Your task to perform on an android device: Open the calendar and show me this week's events Image 0: 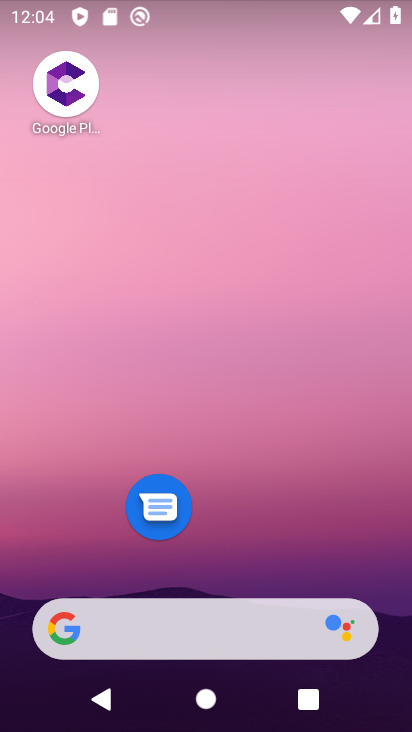
Step 0: drag from (269, 705) to (286, 46)
Your task to perform on an android device: Open the calendar and show me this week's events Image 1: 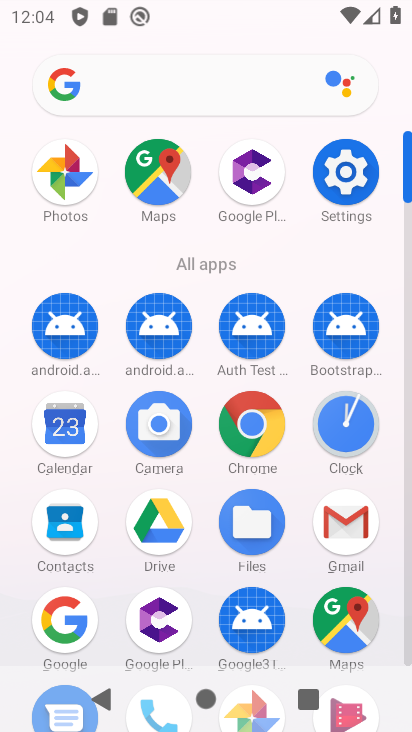
Step 1: click (60, 425)
Your task to perform on an android device: Open the calendar and show me this week's events Image 2: 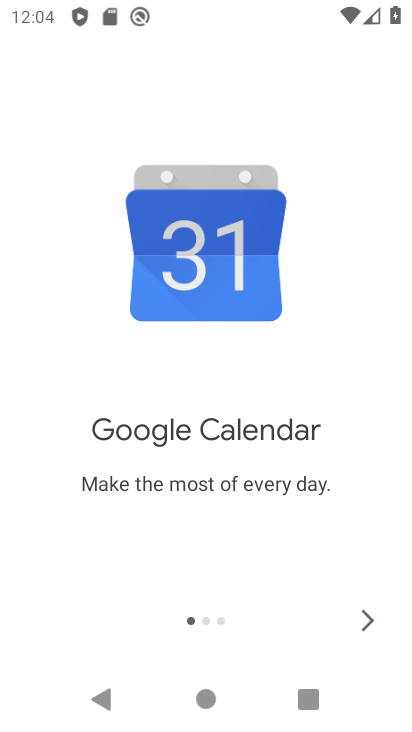
Step 2: click (357, 611)
Your task to perform on an android device: Open the calendar and show me this week's events Image 3: 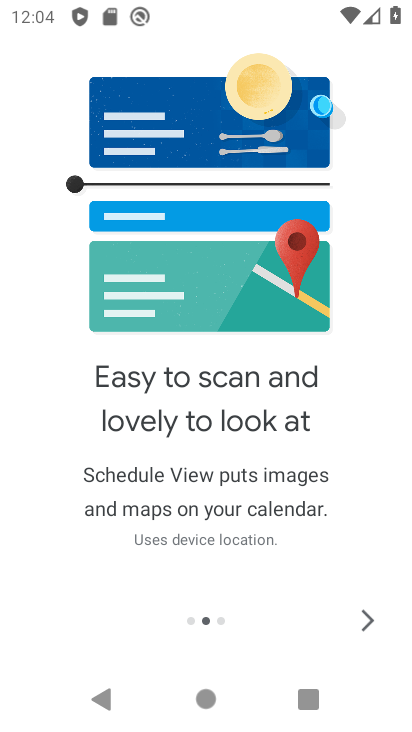
Step 3: click (357, 610)
Your task to perform on an android device: Open the calendar and show me this week's events Image 4: 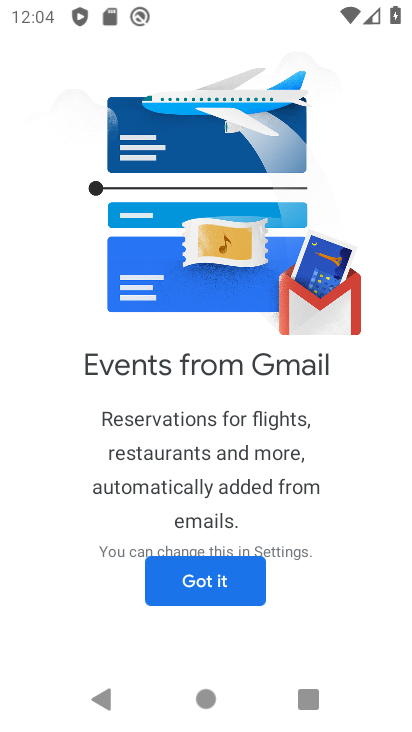
Step 4: click (223, 576)
Your task to perform on an android device: Open the calendar and show me this week's events Image 5: 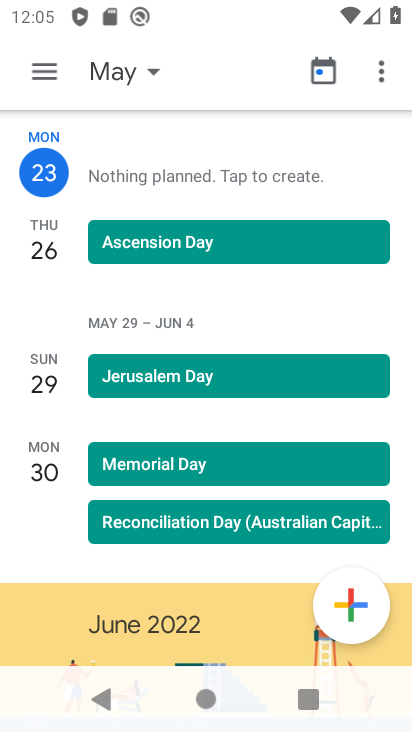
Step 5: task complete